Your task to perform on an android device: allow cookies in the chrome app Image 0: 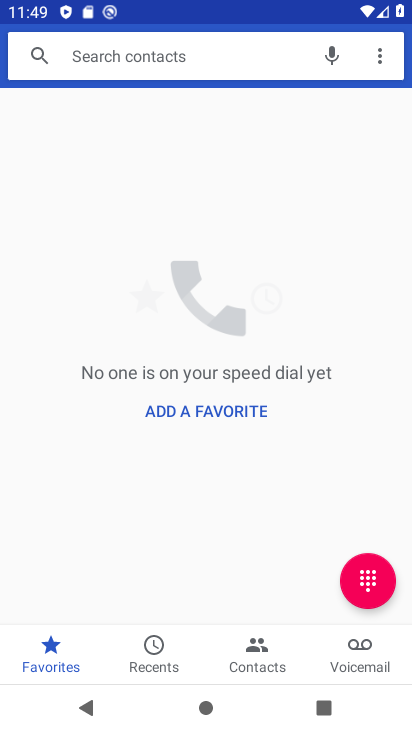
Step 0: press home button
Your task to perform on an android device: allow cookies in the chrome app Image 1: 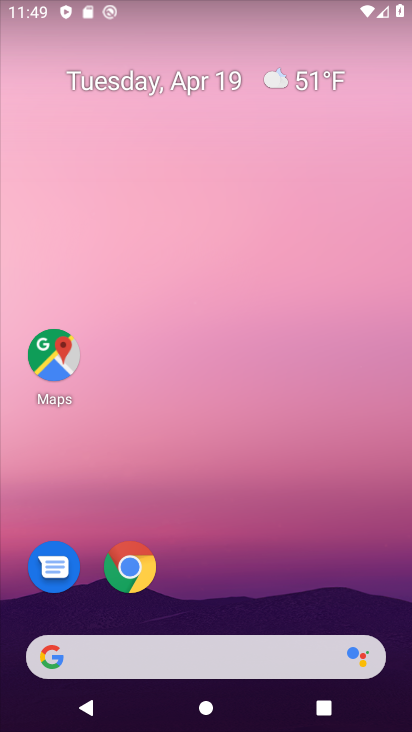
Step 1: click (144, 579)
Your task to perform on an android device: allow cookies in the chrome app Image 2: 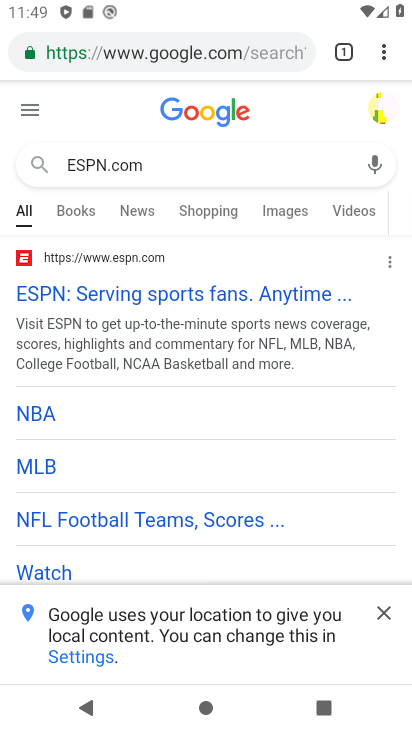
Step 2: click (131, 562)
Your task to perform on an android device: allow cookies in the chrome app Image 3: 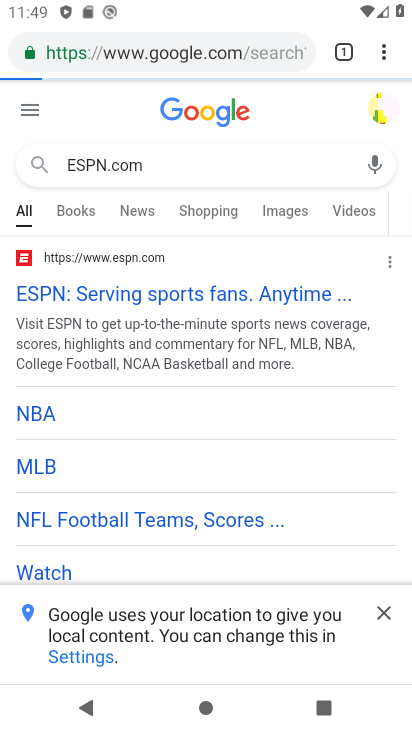
Step 3: click (386, 60)
Your task to perform on an android device: allow cookies in the chrome app Image 4: 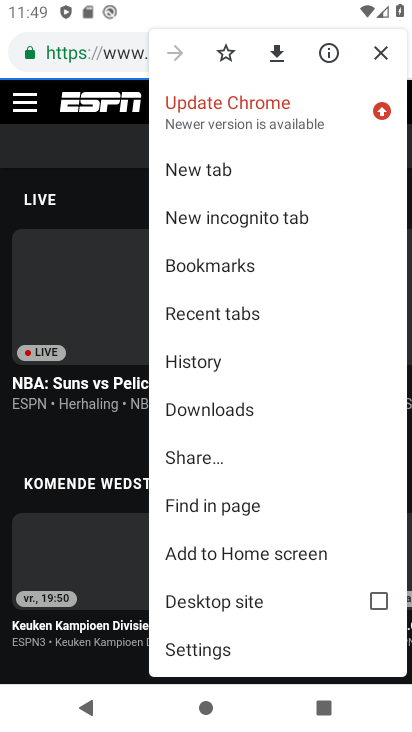
Step 4: drag from (215, 542) to (260, 319)
Your task to perform on an android device: allow cookies in the chrome app Image 5: 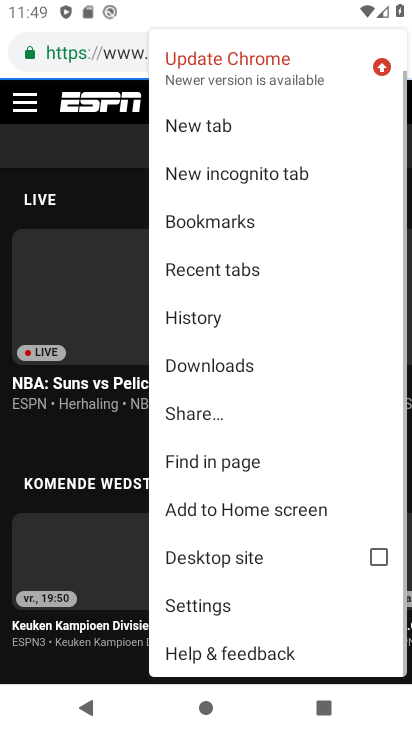
Step 5: click (214, 650)
Your task to perform on an android device: allow cookies in the chrome app Image 6: 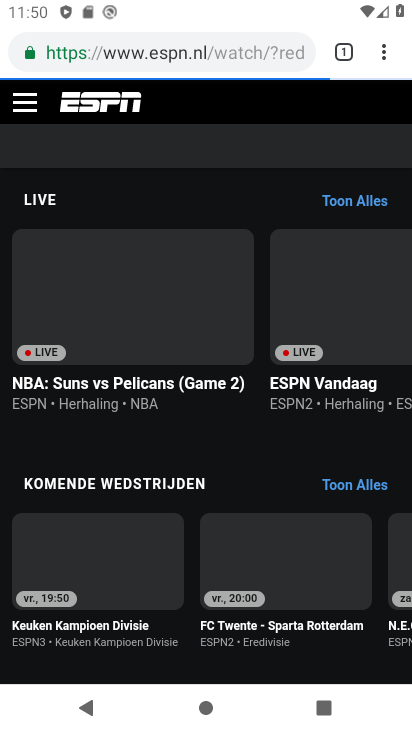
Step 6: click (202, 647)
Your task to perform on an android device: allow cookies in the chrome app Image 7: 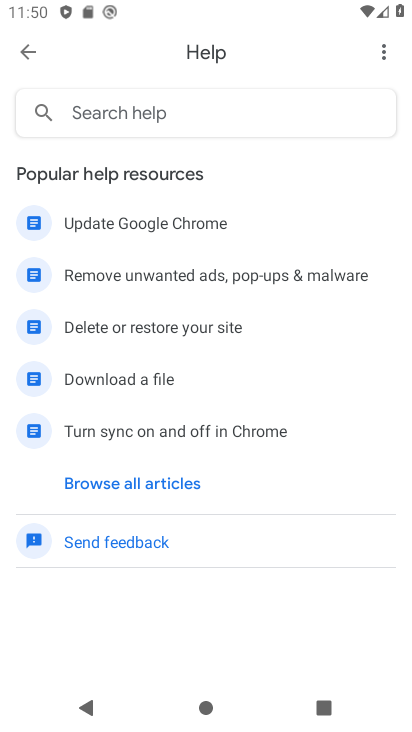
Step 7: click (193, 606)
Your task to perform on an android device: allow cookies in the chrome app Image 8: 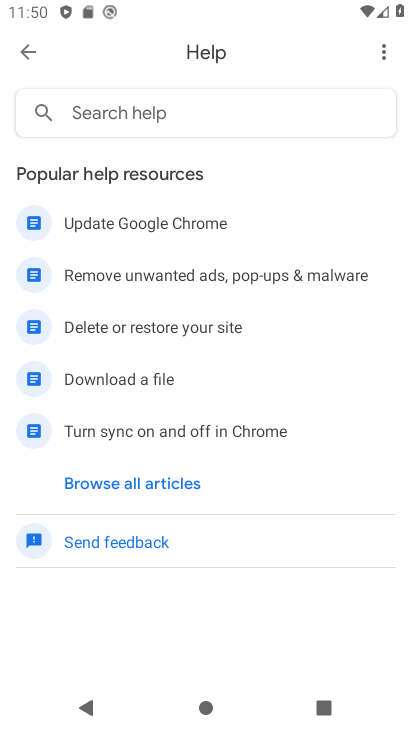
Step 8: click (83, 705)
Your task to perform on an android device: allow cookies in the chrome app Image 9: 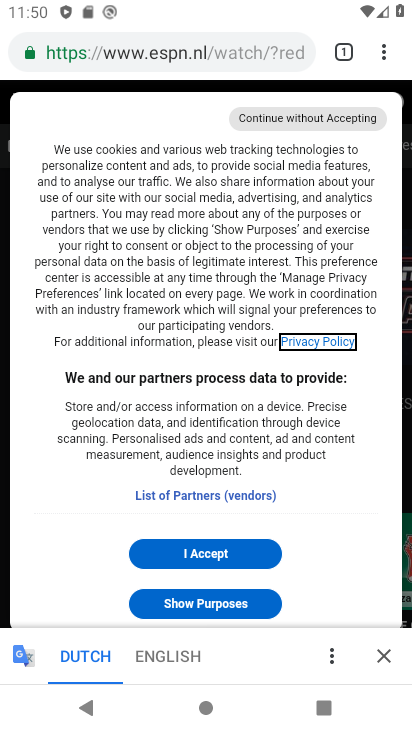
Step 9: click (381, 54)
Your task to perform on an android device: allow cookies in the chrome app Image 10: 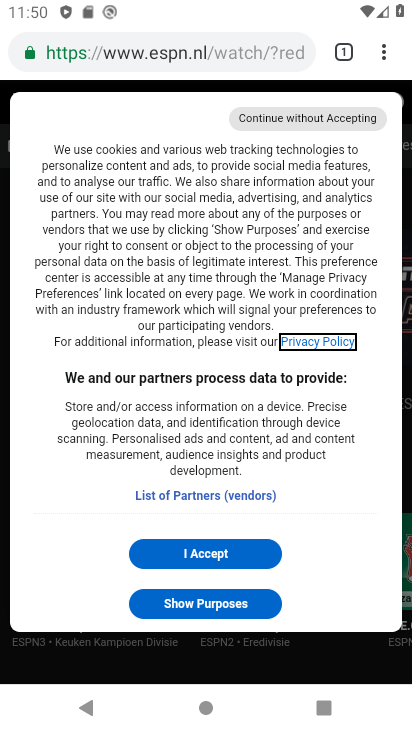
Step 10: click (382, 53)
Your task to perform on an android device: allow cookies in the chrome app Image 11: 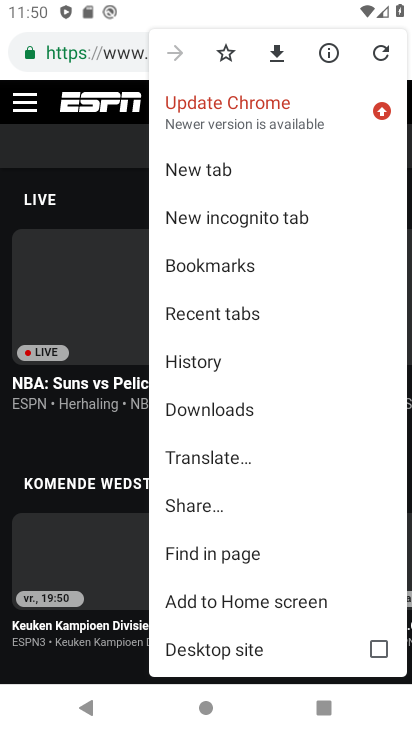
Step 11: drag from (230, 546) to (328, 18)
Your task to perform on an android device: allow cookies in the chrome app Image 12: 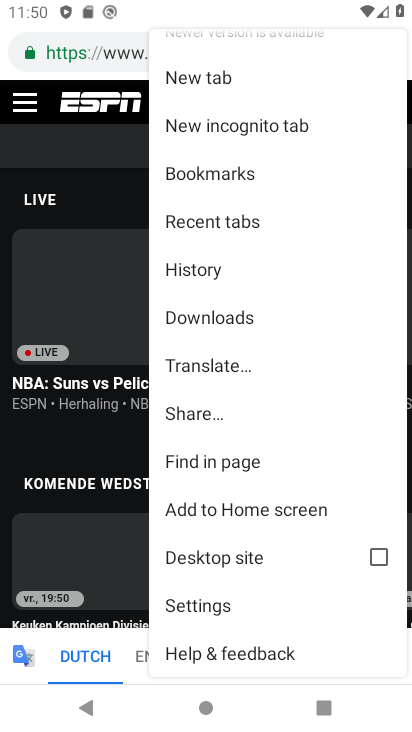
Step 12: click (212, 611)
Your task to perform on an android device: allow cookies in the chrome app Image 13: 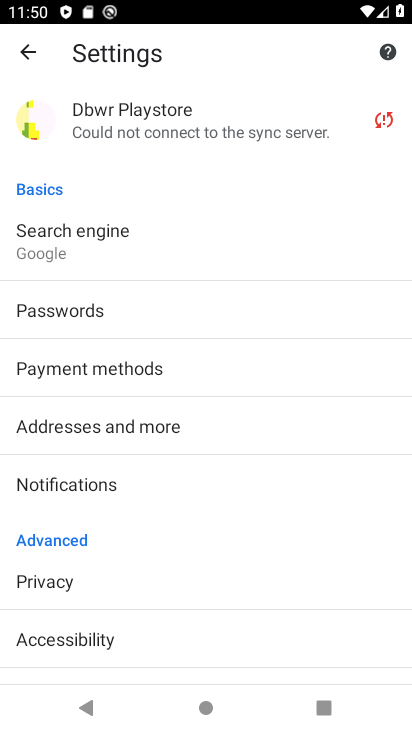
Step 13: drag from (118, 572) to (172, 283)
Your task to perform on an android device: allow cookies in the chrome app Image 14: 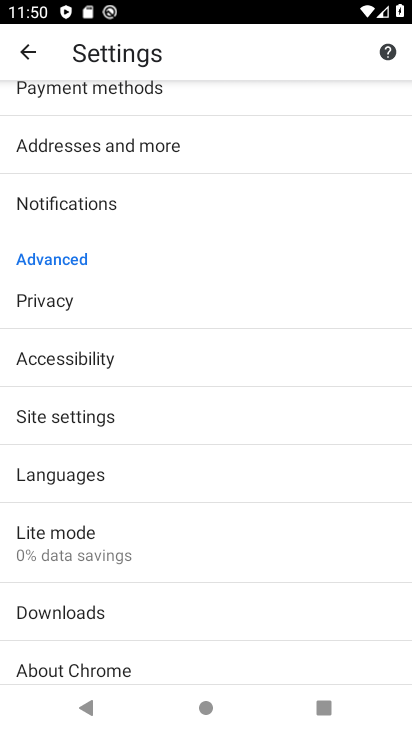
Step 14: click (90, 418)
Your task to perform on an android device: allow cookies in the chrome app Image 15: 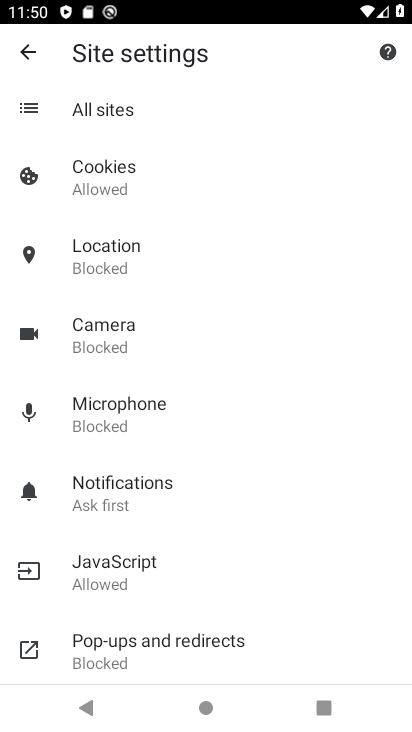
Step 15: task complete